Your task to perform on an android device: turn off picture-in-picture Image 0: 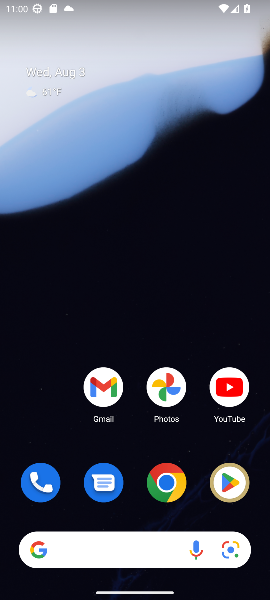
Step 0: drag from (130, 526) to (70, 40)
Your task to perform on an android device: turn off picture-in-picture Image 1: 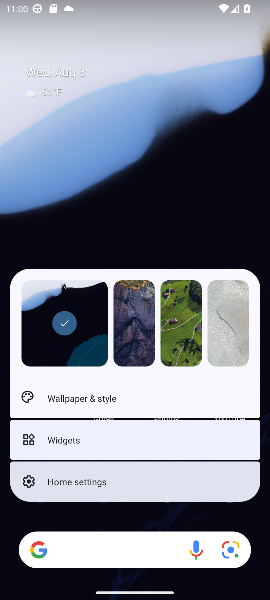
Step 1: click (92, 76)
Your task to perform on an android device: turn off picture-in-picture Image 2: 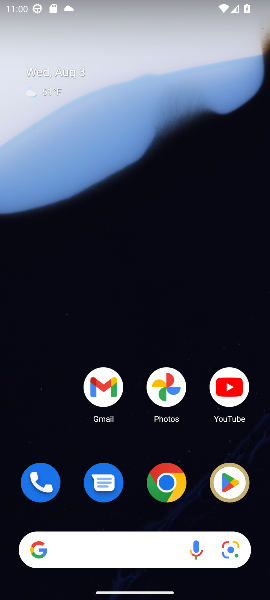
Step 2: drag from (141, 527) to (118, 168)
Your task to perform on an android device: turn off picture-in-picture Image 3: 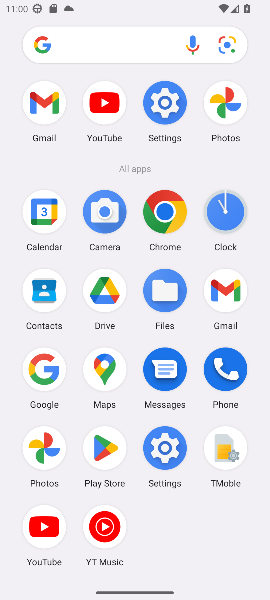
Step 3: click (157, 110)
Your task to perform on an android device: turn off picture-in-picture Image 4: 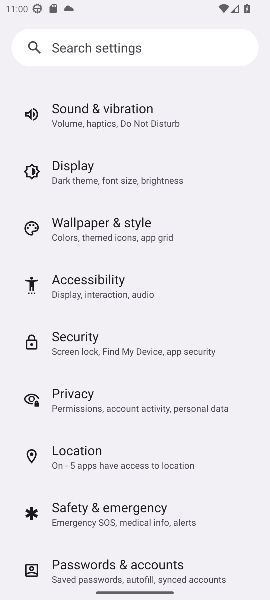
Step 4: click (124, 446)
Your task to perform on an android device: turn off picture-in-picture Image 5: 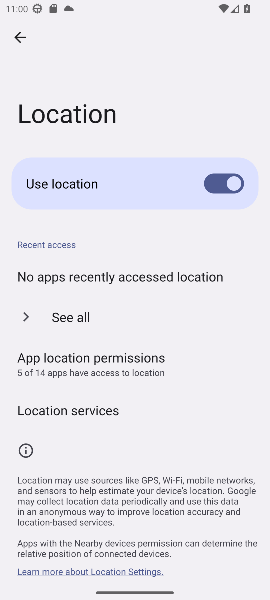
Step 5: task complete